Your task to perform on an android device: install app "Messages" Image 0: 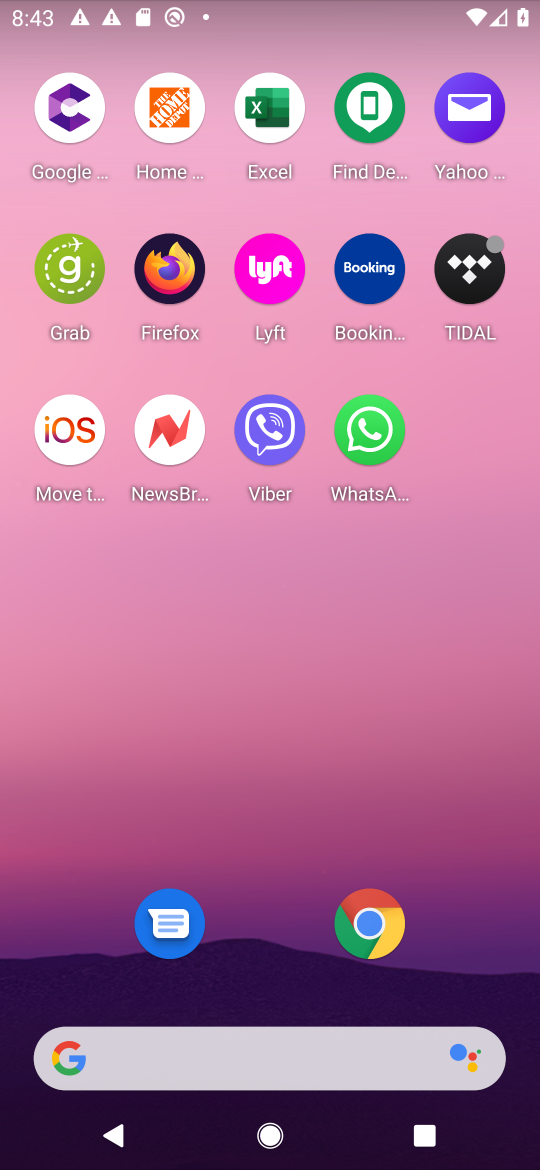
Step 0: drag from (489, 954) to (422, 225)
Your task to perform on an android device: install app "Messages" Image 1: 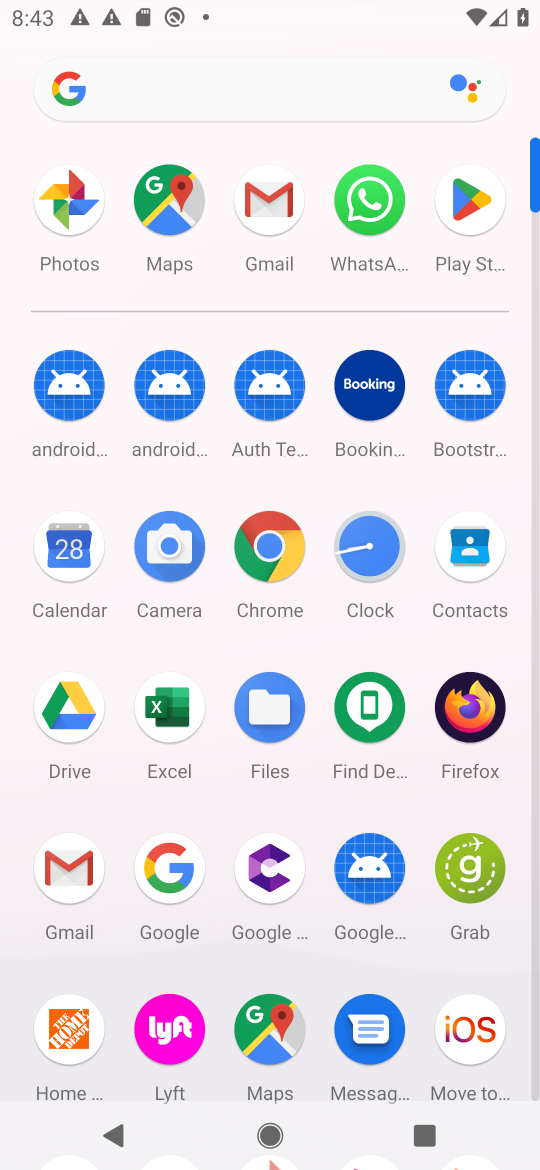
Step 1: click (473, 189)
Your task to perform on an android device: install app "Messages" Image 2: 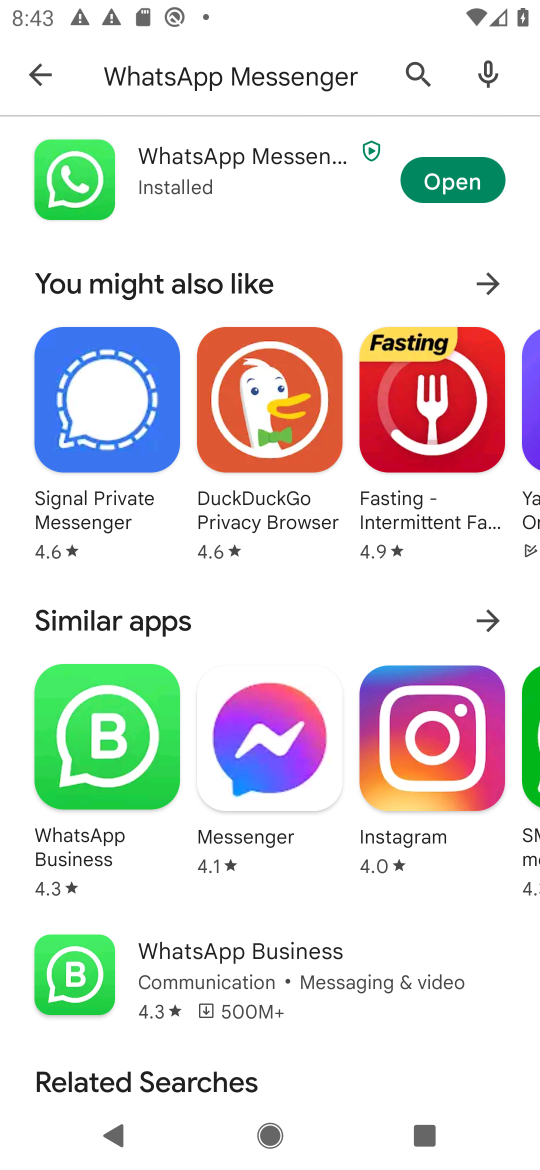
Step 2: click (242, 77)
Your task to perform on an android device: install app "Messages" Image 3: 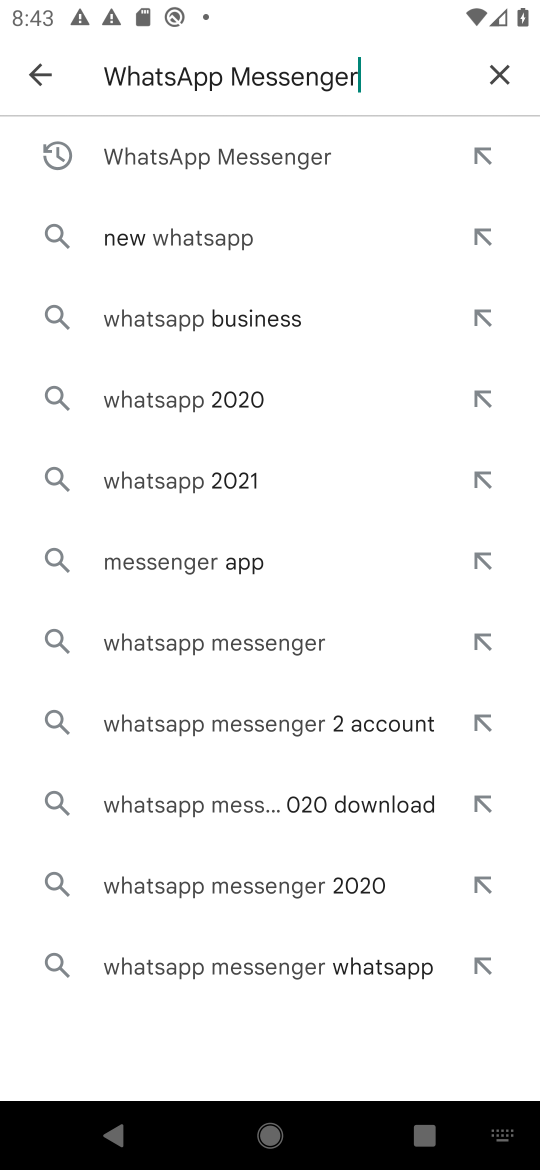
Step 3: click (512, 74)
Your task to perform on an android device: install app "Messages" Image 4: 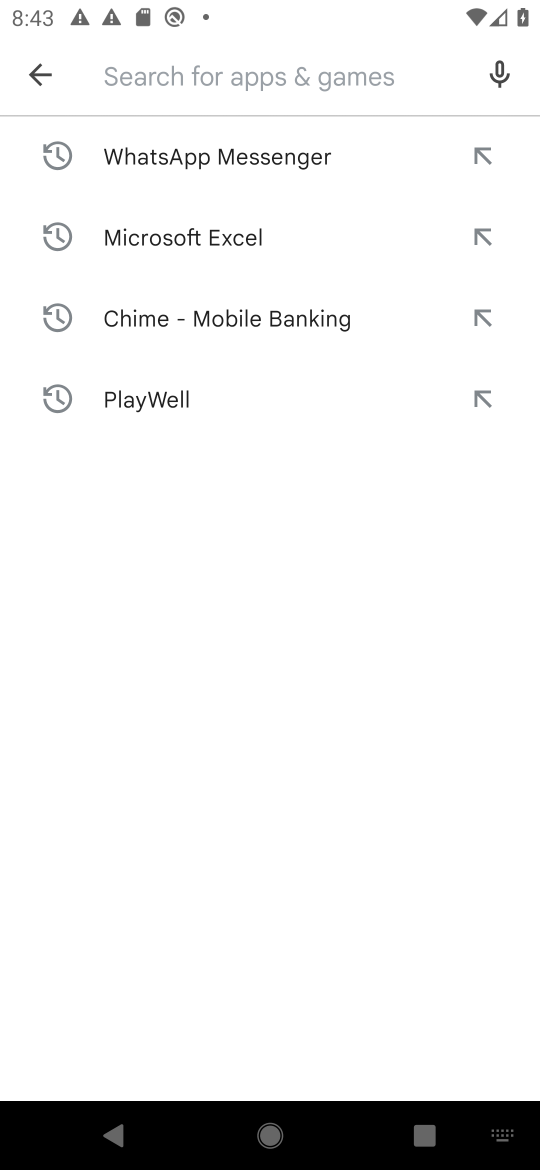
Step 4: type "Messages"
Your task to perform on an android device: install app "Messages" Image 5: 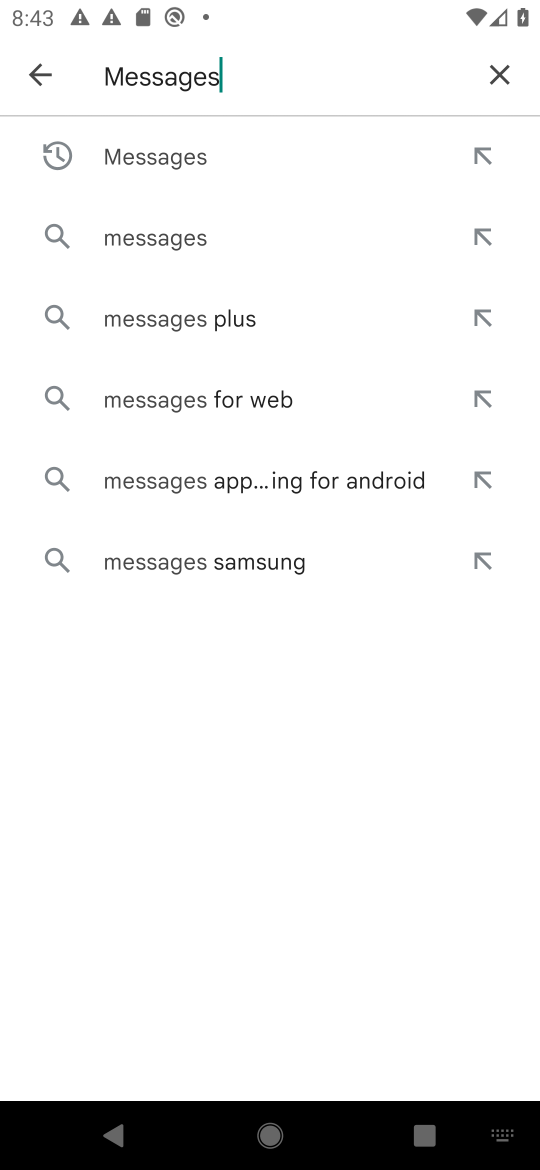
Step 5: press enter
Your task to perform on an android device: install app "Messages" Image 6: 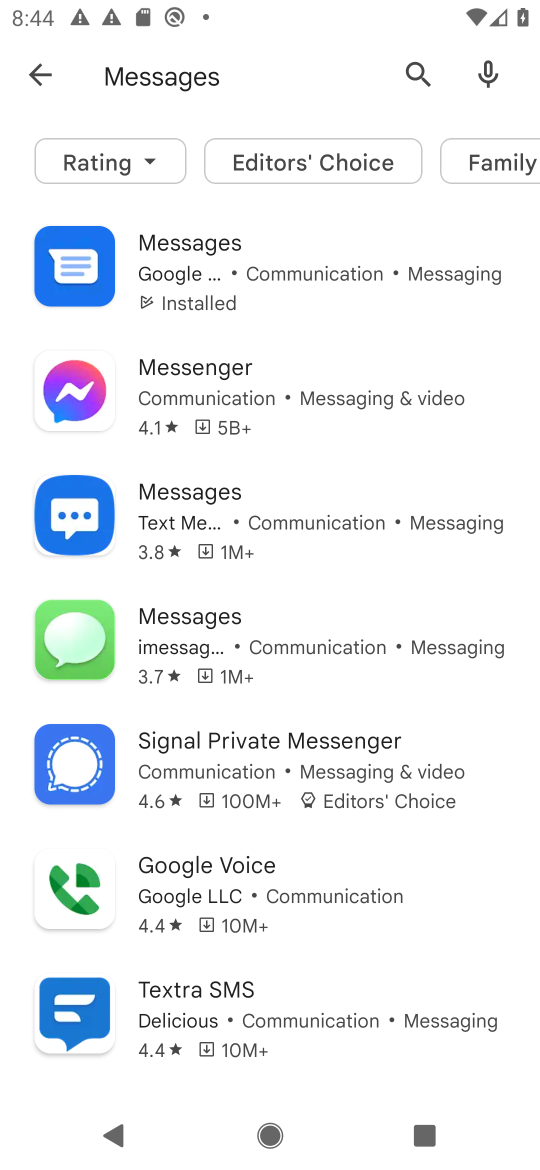
Step 6: click (329, 261)
Your task to perform on an android device: install app "Messages" Image 7: 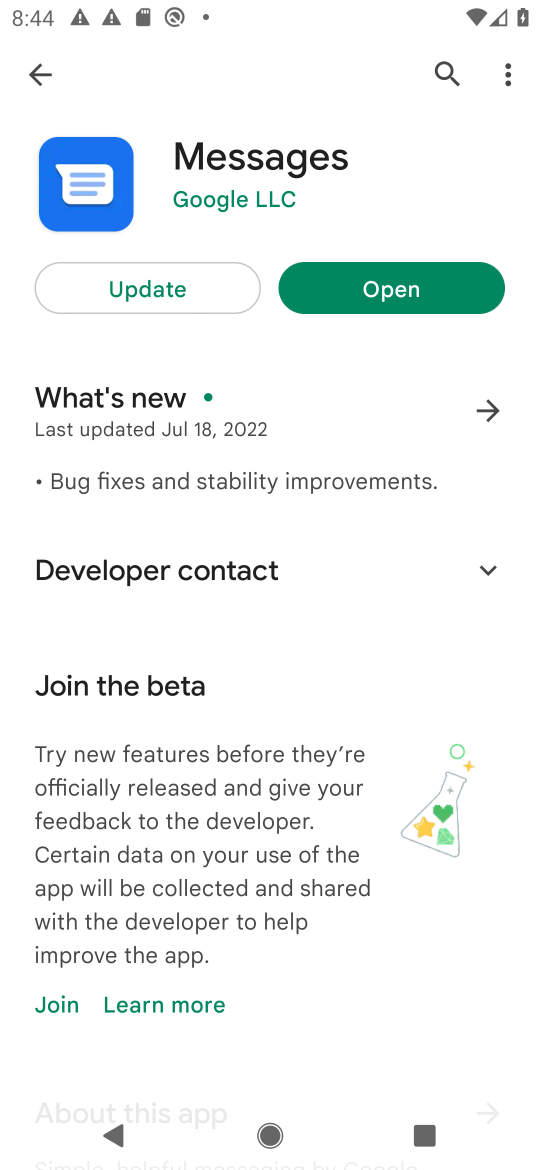
Step 7: task complete